Your task to perform on an android device: turn on javascript in the chrome app Image 0: 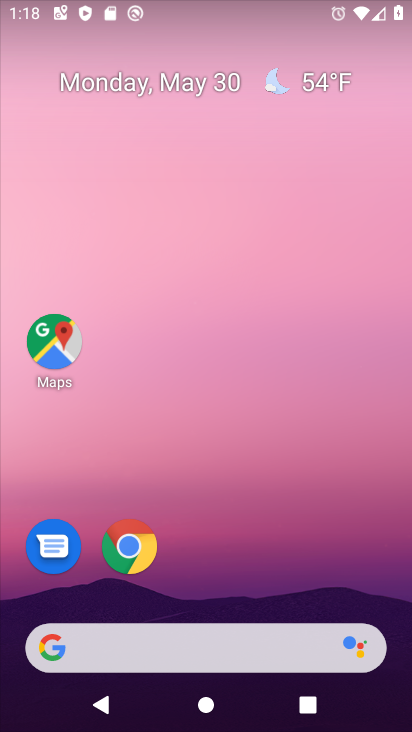
Step 0: press home button
Your task to perform on an android device: turn on javascript in the chrome app Image 1: 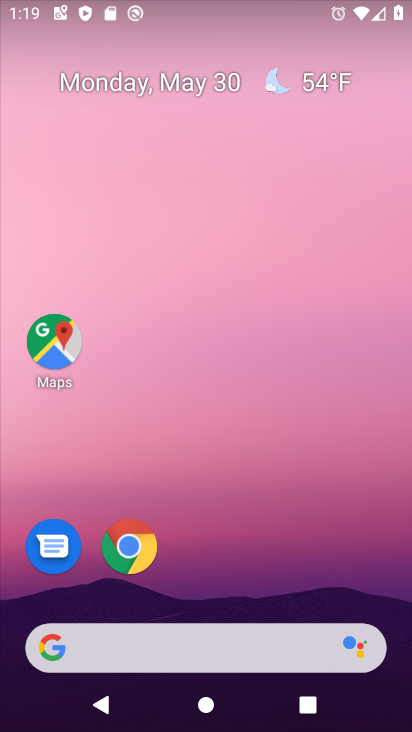
Step 1: click (135, 551)
Your task to perform on an android device: turn on javascript in the chrome app Image 2: 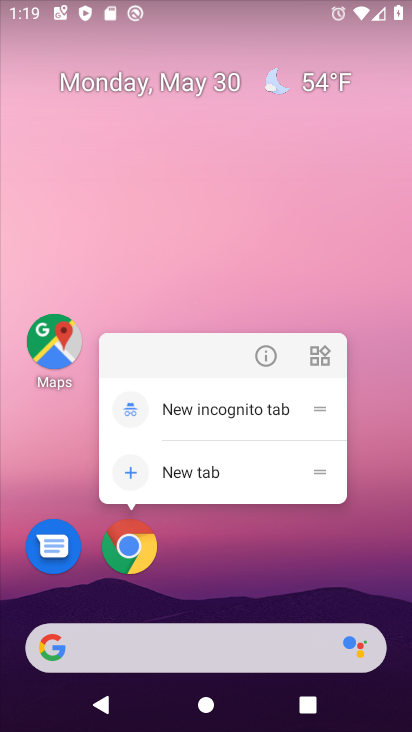
Step 2: click (138, 555)
Your task to perform on an android device: turn on javascript in the chrome app Image 3: 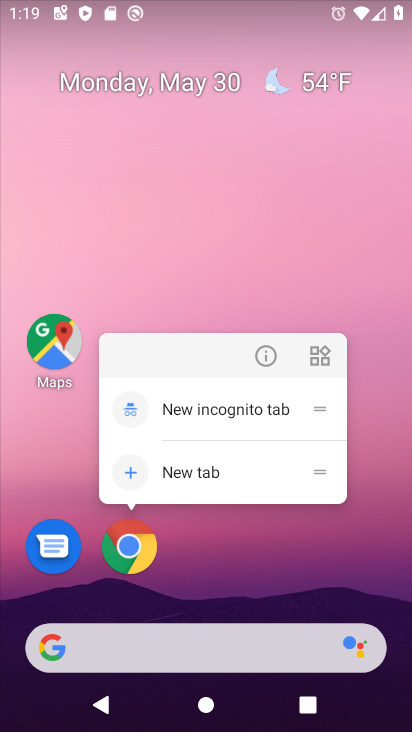
Step 3: click (288, 563)
Your task to perform on an android device: turn on javascript in the chrome app Image 4: 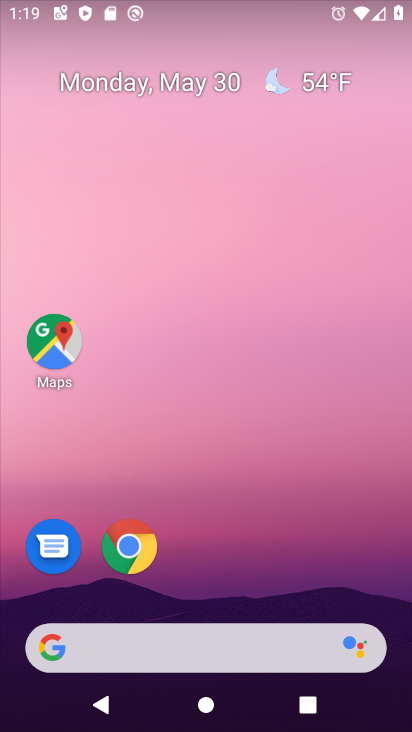
Step 4: drag from (346, 598) to (340, 96)
Your task to perform on an android device: turn on javascript in the chrome app Image 5: 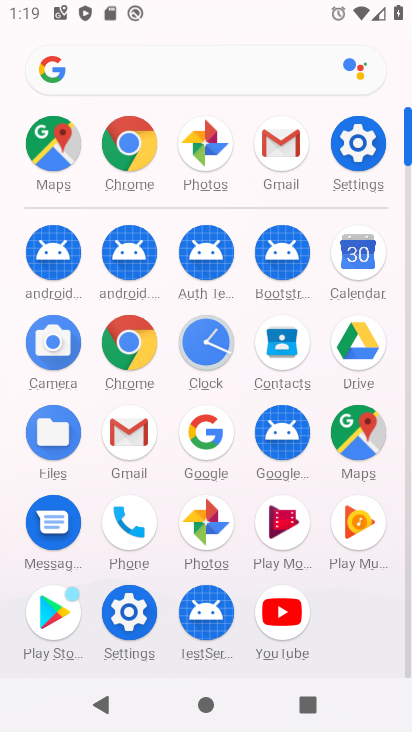
Step 5: click (122, 148)
Your task to perform on an android device: turn on javascript in the chrome app Image 6: 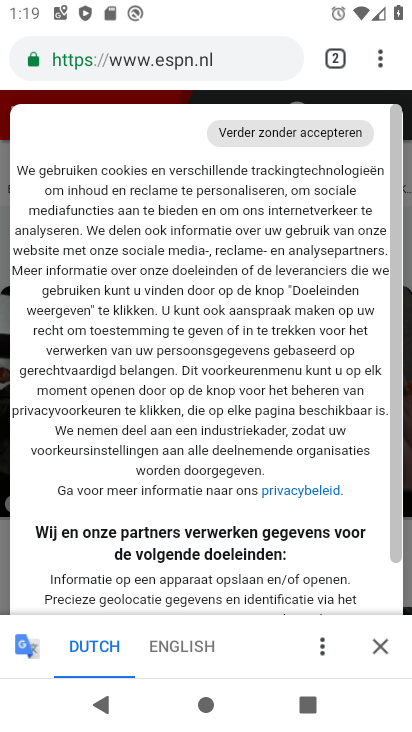
Step 6: drag from (374, 59) to (230, 583)
Your task to perform on an android device: turn on javascript in the chrome app Image 7: 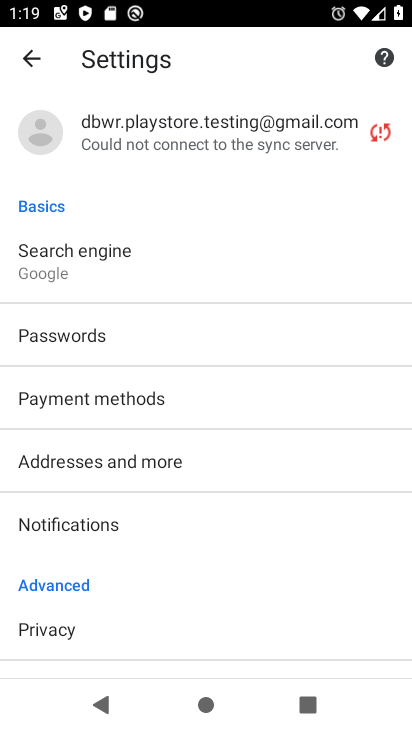
Step 7: drag from (229, 557) to (208, 196)
Your task to perform on an android device: turn on javascript in the chrome app Image 8: 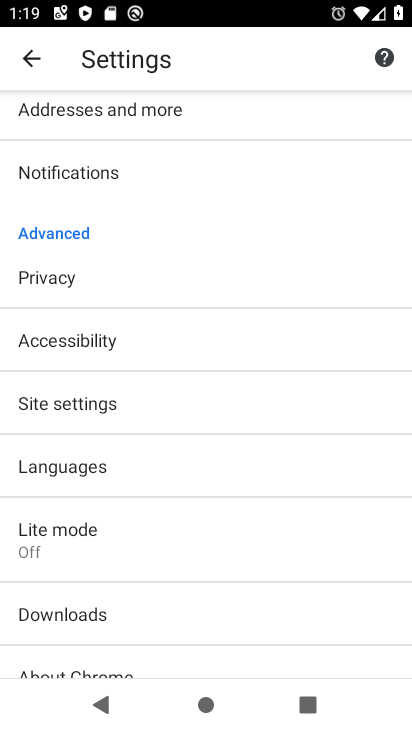
Step 8: click (71, 405)
Your task to perform on an android device: turn on javascript in the chrome app Image 9: 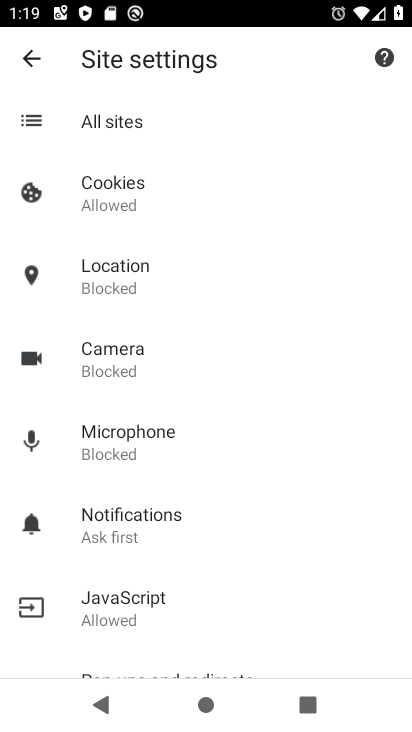
Step 9: click (128, 599)
Your task to perform on an android device: turn on javascript in the chrome app Image 10: 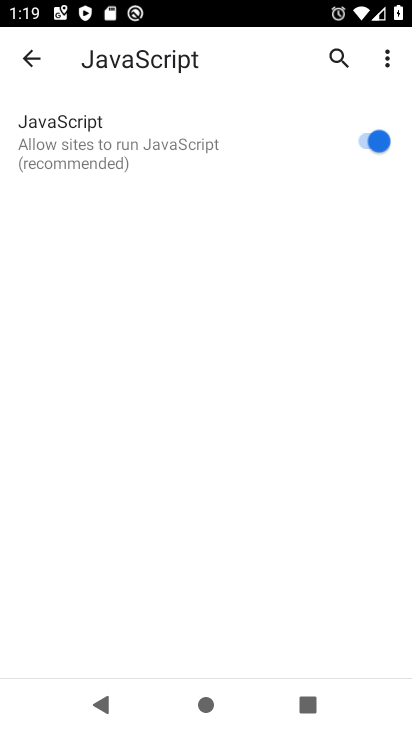
Step 10: task complete